Your task to perform on an android device: turn off notifications settings in the gmail app Image 0: 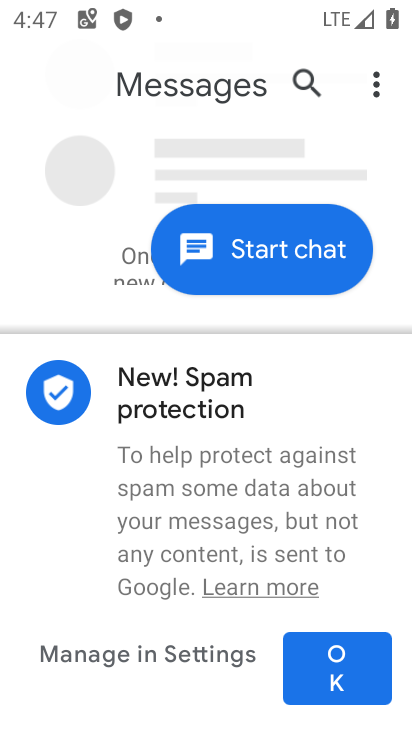
Step 0: press home button
Your task to perform on an android device: turn off notifications settings in the gmail app Image 1: 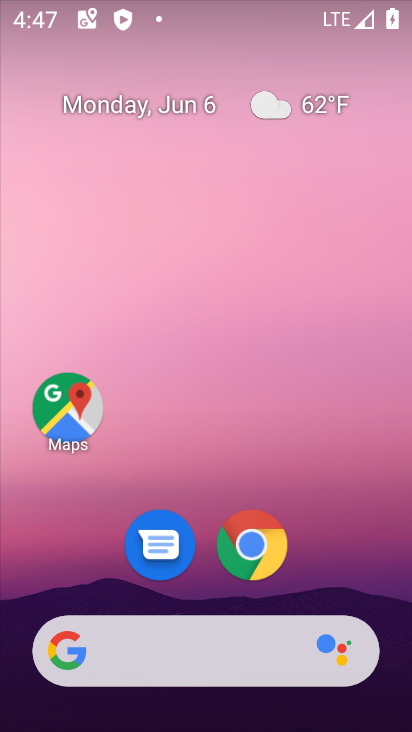
Step 1: drag from (196, 660) to (213, 5)
Your task to perform on an android device: turn off notifications settings in the gmail app Image 2: 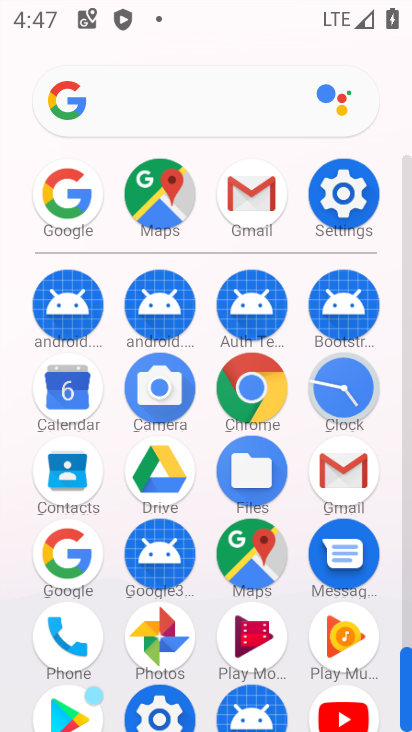
Step 2: click (242, 196)
Your task to perform on an android device: turn off notifications settings in the gmail app Image 3: 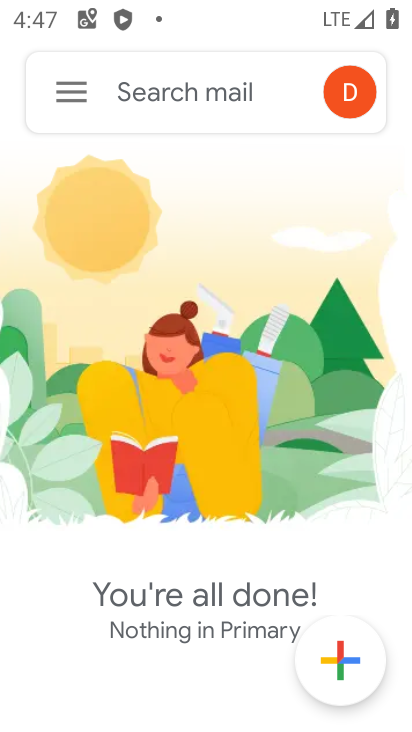
Step 3: click (65, 86)
Your task to perform on an android device: turn off notifications settings in the gmail app Image 4: 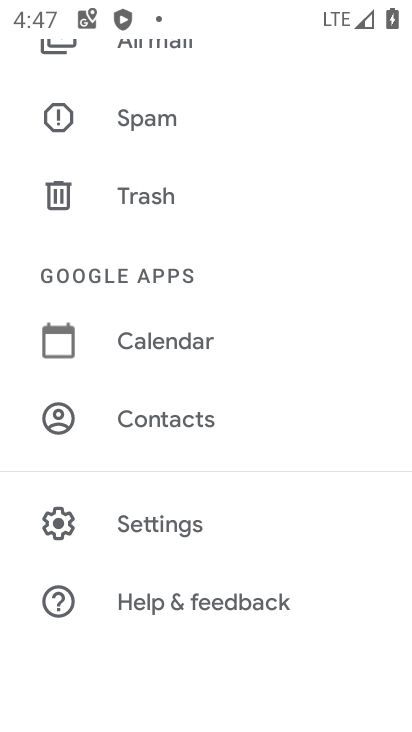
Step 4: click (156, 526)
Your task to perform on an android device: turn off notifications settings in the gmail app Image 5: 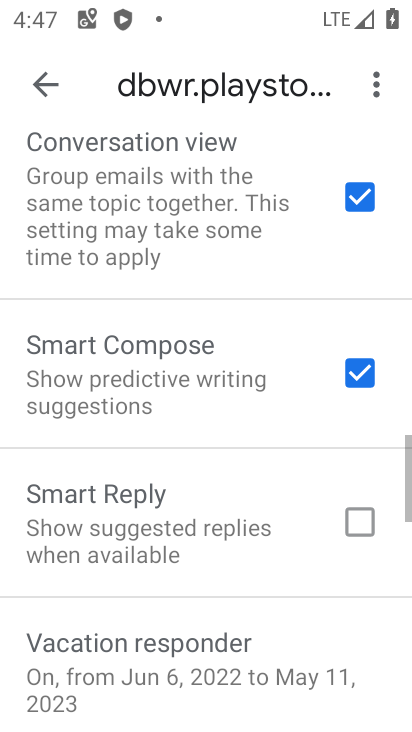
Step 5: drag from (177, 683) to (165, 283)
Your task to perform on an android device: turn off notifications settings in the gmail app Image 6: 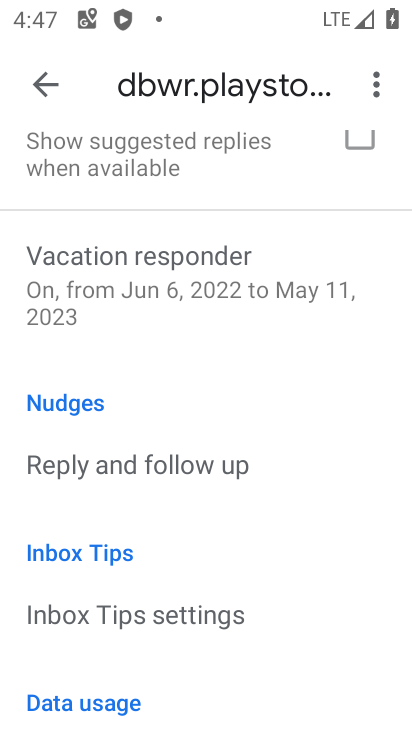
Step 6: click (174, 673)
Your task to perform on an android device: turn off notifications settings in the gmail app Image 7: 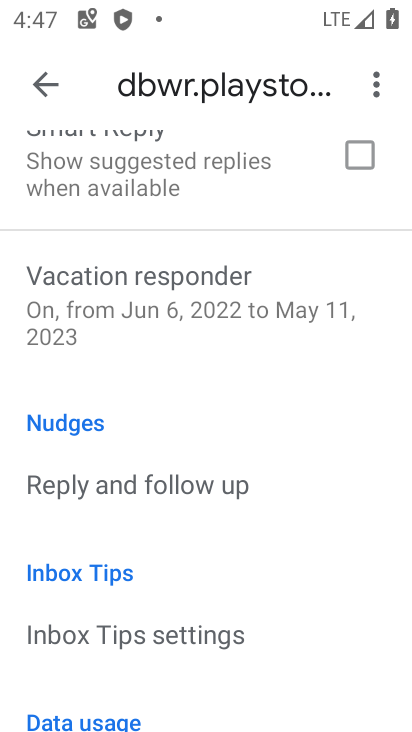
Step 7: drag from (209, 208) to (210, 573)
Your task to perform on an android device: turn off notifications settings in the gmail app Image 8: 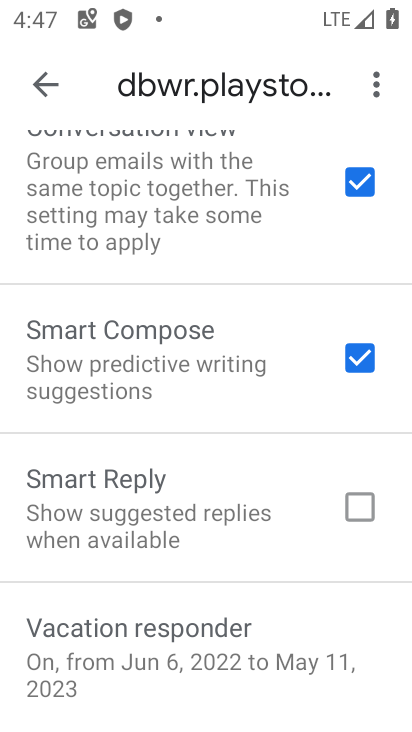
Step 8: drag from (140, 169) to (158, 625)
Your task to perform on an android device: turn off notifications settings in the gmail app Image 9: 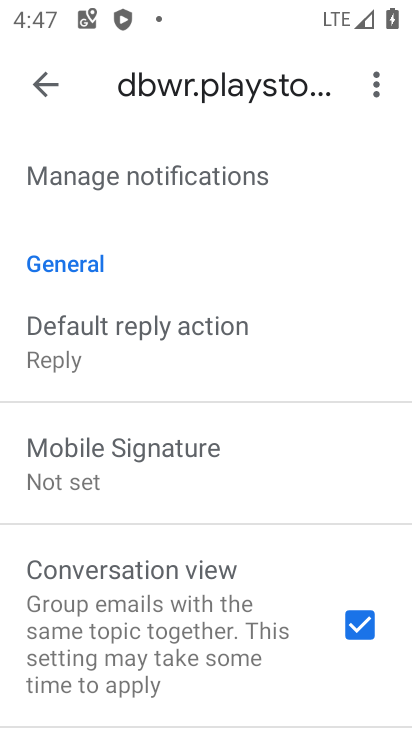
Step 9: drag from (158, 208) to (168, 533)
Your task to perform on an android device: turn off notifications settings in the gmail app Image 10: 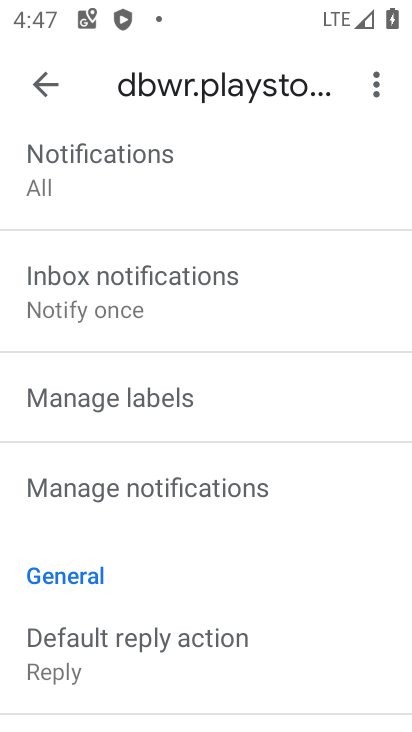
Step 10: click (96, 161)
Your task to perform on an android device: turn off notifications settings in the gmail app Image 11: 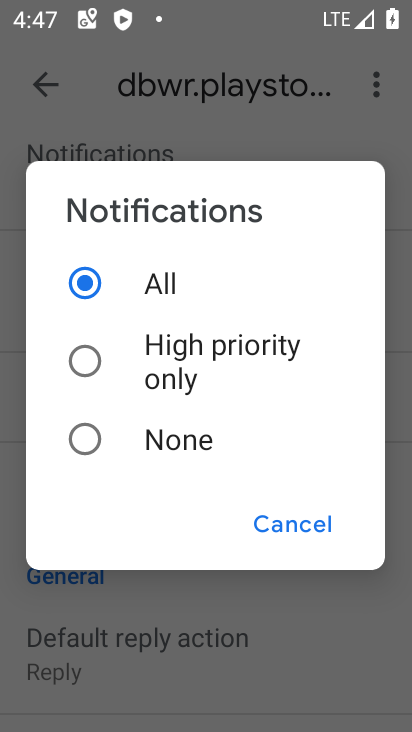
Step 11: click (92, 437)
Your task to perform on an android device: turn off notifications settings in the gmail app Image 12: 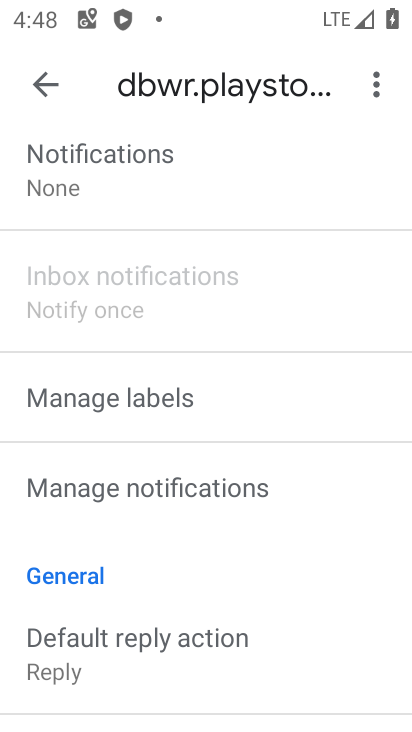
Step 12: task complete